Your task to perform on an android device: check data usage Image 0: 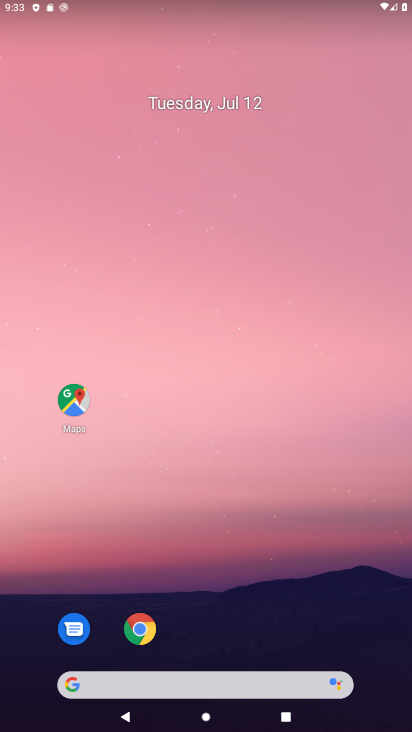
Step 0: drag from (307, 464) to (332, 0)
Your task to perform on an android device: check data usage Image 1: 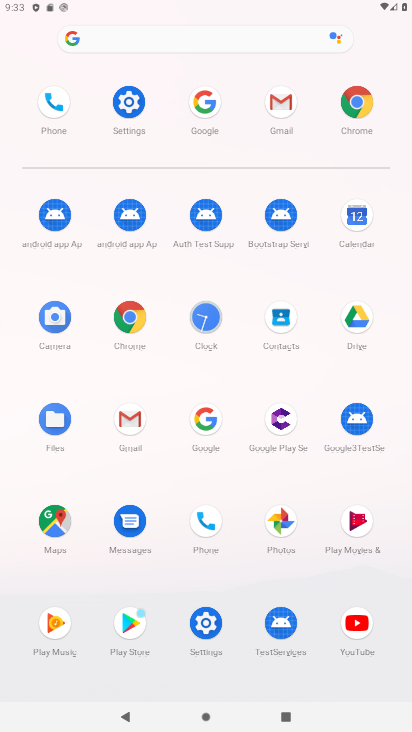
Step 1: click (133, 97)
Your task to perform on an android device: check data usage Image 2: 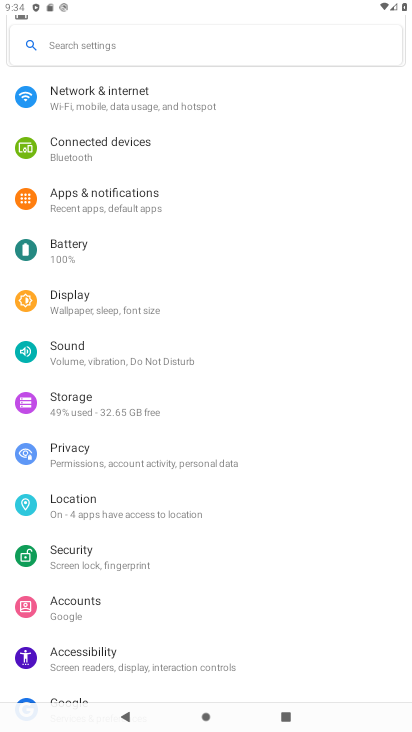
Step 2: click (162, 103)
Your task to perform on an android device: check data usage Image 3: 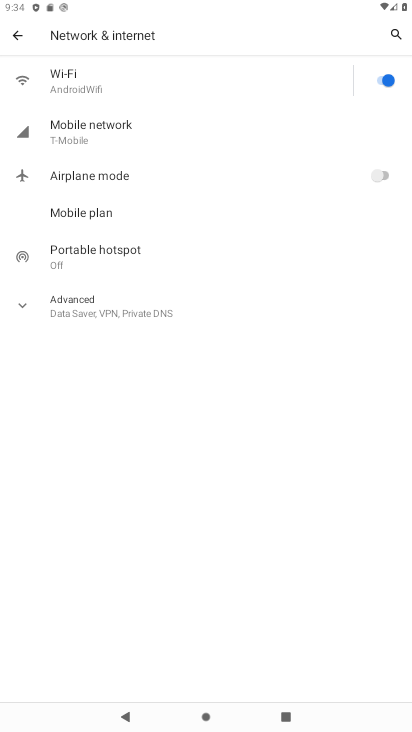
Step 3: task complete